Your task to perform on an android device: open a bookmark in the chrome app Image 0: 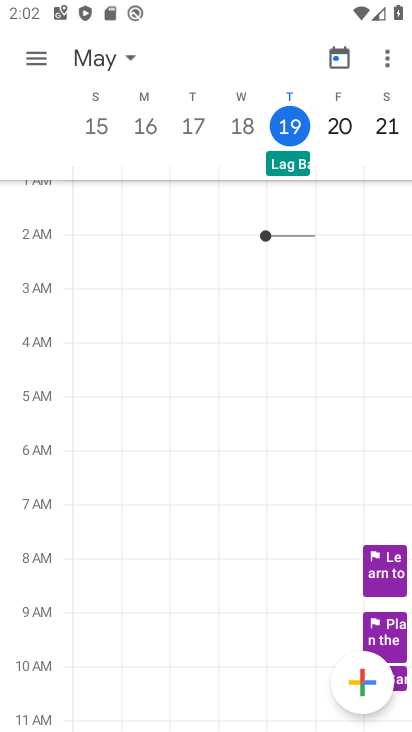
Step 0: press home button
Your task to perform on an android device: open a bookmark in the chrome app Image 1: 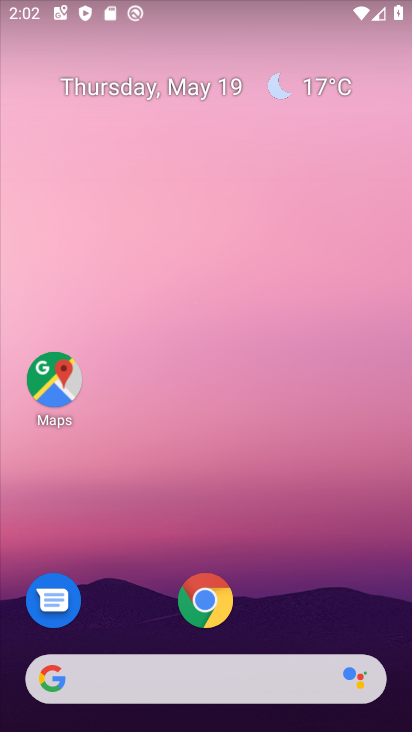
Step 1: click (203, 600)
Your task to perform on an android device: open a bookmark in the chrome app Image 2: 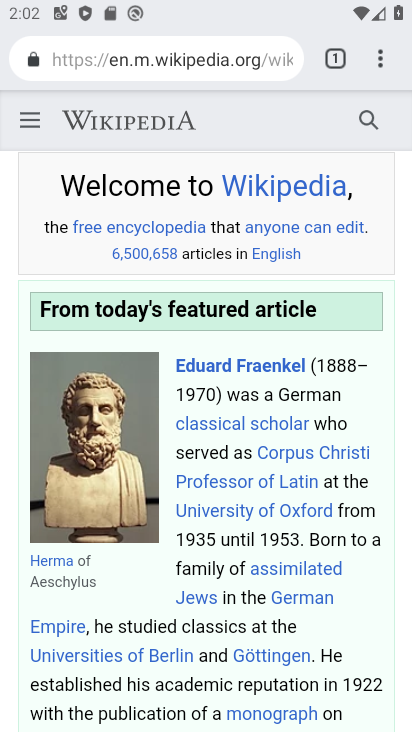
Step 2: click (379, 61)
Your task to perform on an android device: open a bookmark in the chrome app Image 3: 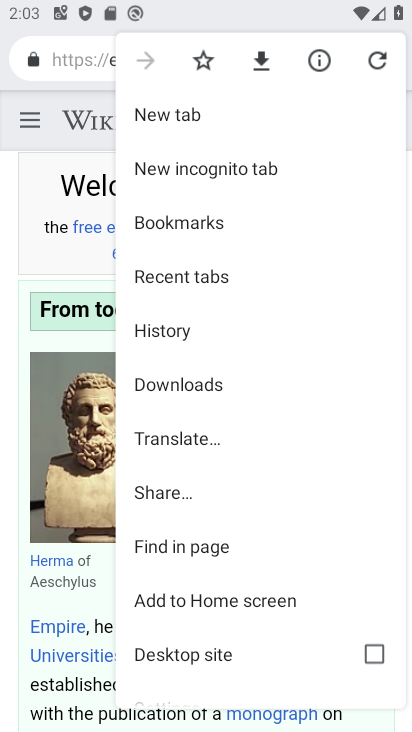
Step 3: click (201, 223)
Your task to perform on an android device: open a bookmark in the chrome app Image 4: 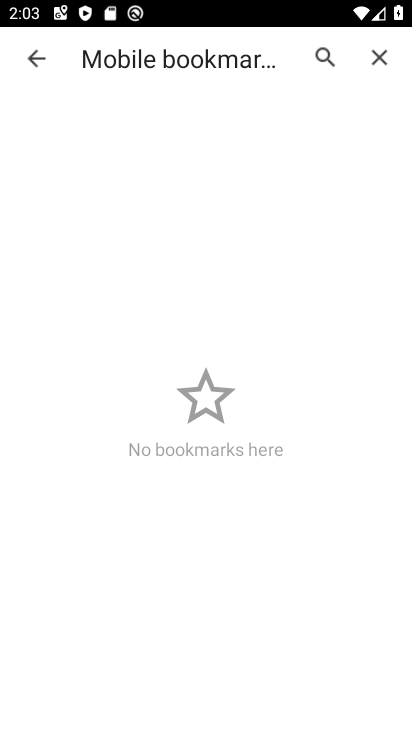
Step 4: task complete